Your task to perform on an android device: change timer sound Image 0: 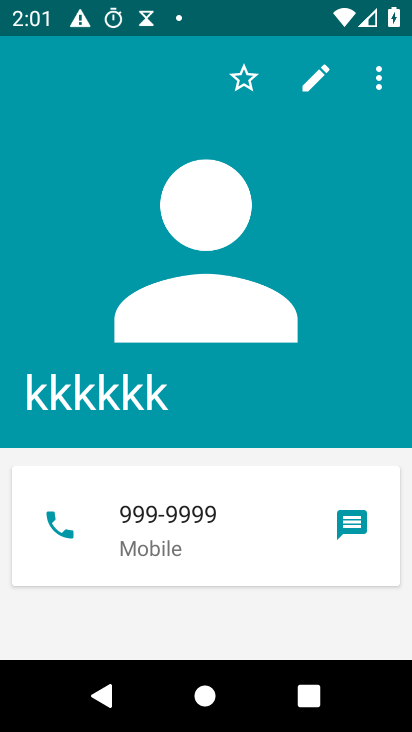
Step 0: press home button
Your task to perform on an android device: change timer sound Image 1: 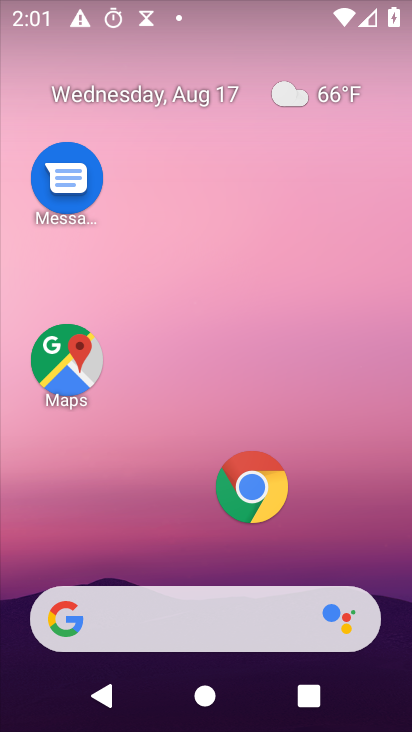
Step 1: drag from (200, 558) to (247, 4)
Your task to perform on an android device: change timer sound Image 2: 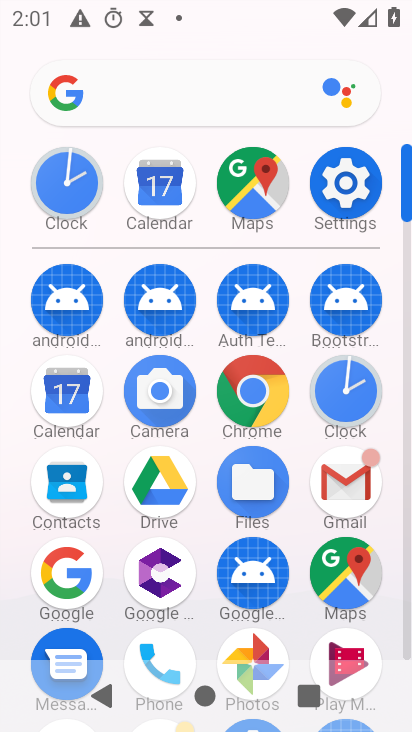
Step 2: click (61, 203)
Your task to perform on an android device: change timer sound Image 3: 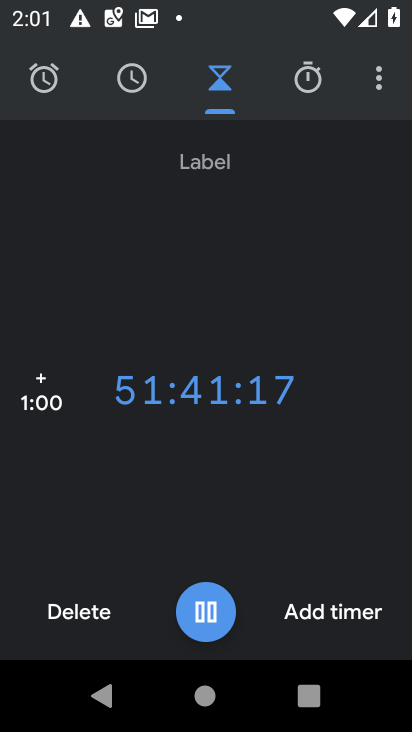
Step 3: click (376, 89)
Your task to perform on an android device: change timer sound Image 4: 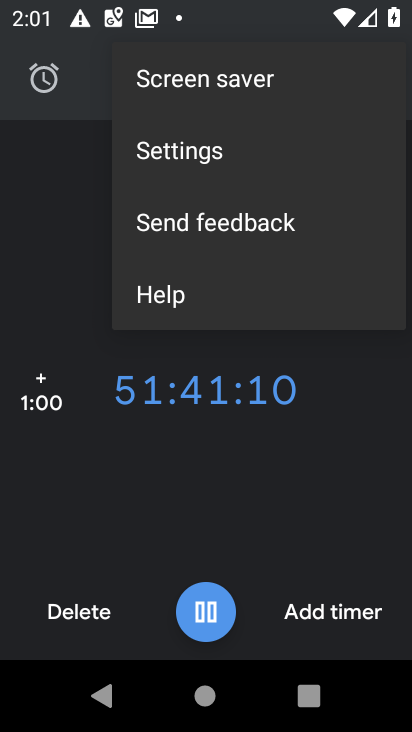
Step 4: click (193, 155)
Your task to perform on an android device: change timer sound Image 5: 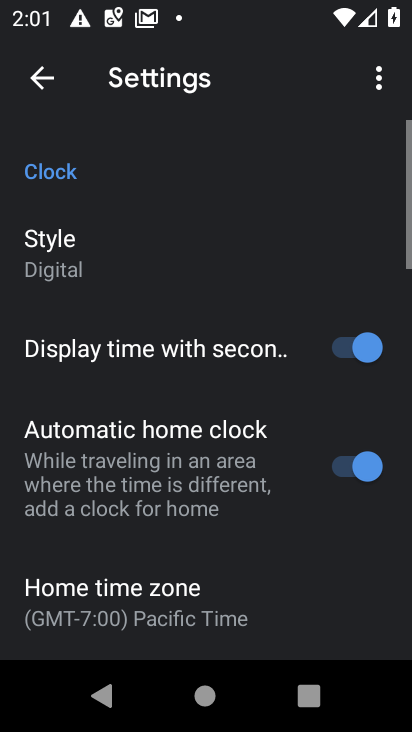
Step 5: drag from (363, 551) to (372, 58)
Your task to perform on an android device: change timer sound Image 6: 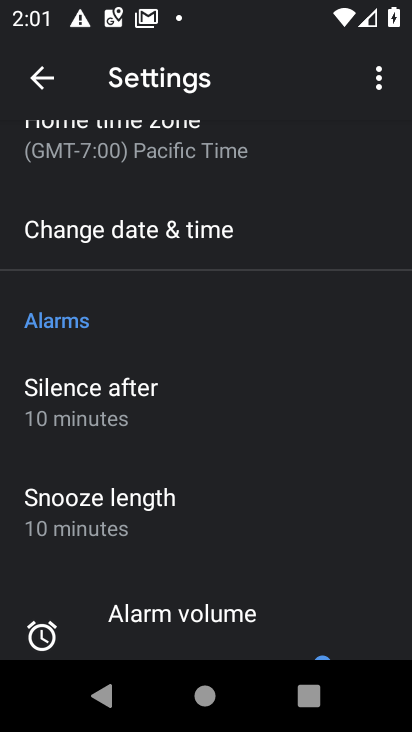
Step 6: drag from (223, 475) to (281, 49)
Your task to perform on an android device: change timer sound Image 7: 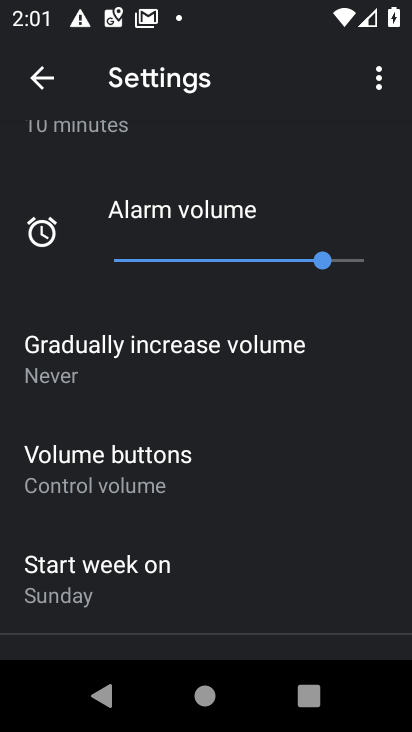
Step 7: drag from (350, 413) to (388, 550)
Your task to perform on an android device: change timer sound Image 8: 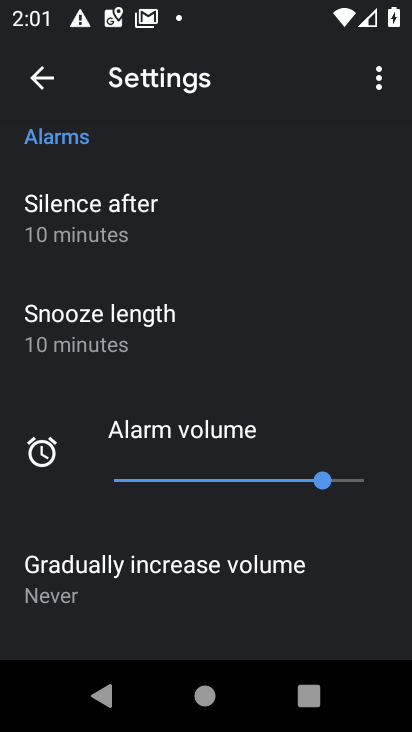
Step 8: drag from (282, 591) to (194, 87)
Your task to perform on an android device: change timer sound Image 9: 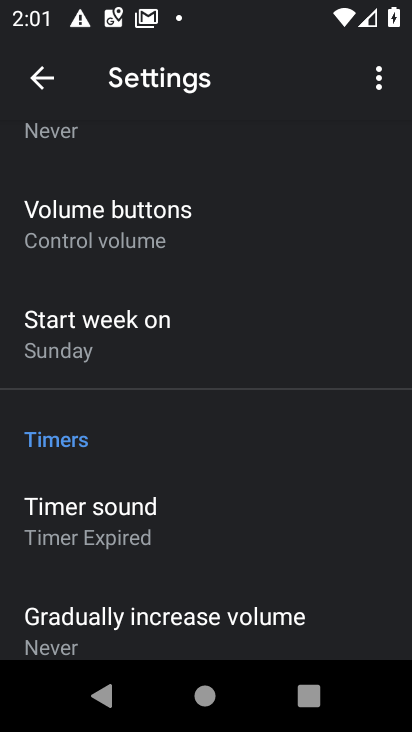
Step 9: click (77, 518)
Your task to perform on an android device: change timer sound Image 10: 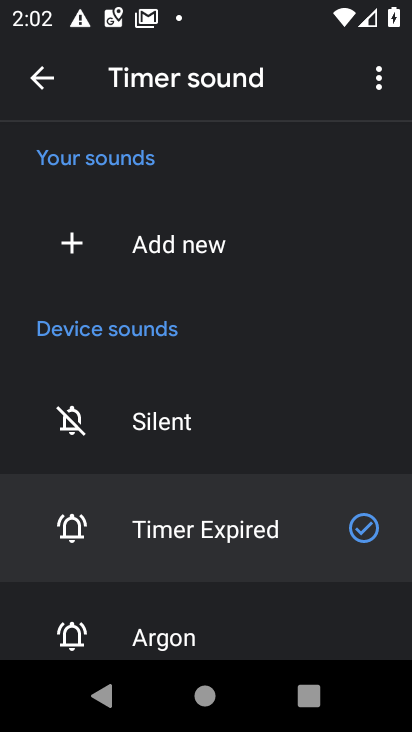
Step 10: click (196, 645)
Your task to perform on an android device: change timer sound Image 11: 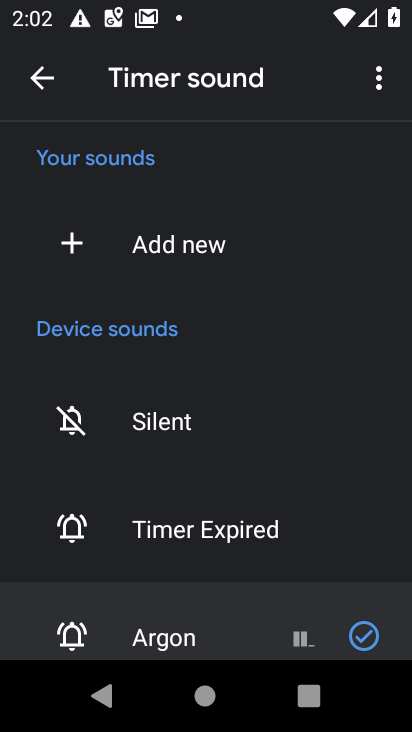
Step 11: task complete